Your task to perform on an android device: allow notifications from all sites in the chrome app Image 0: 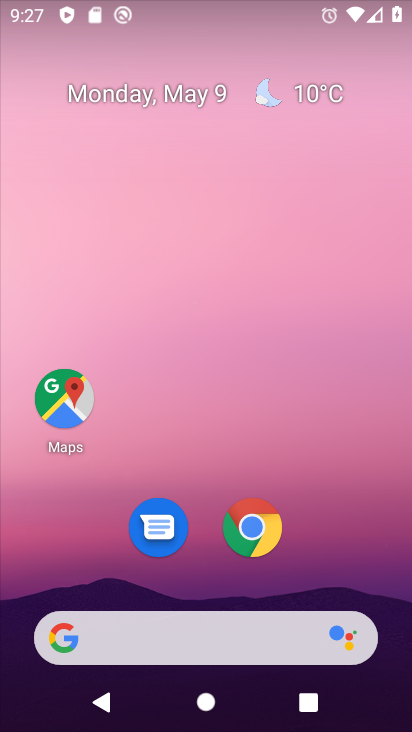
Step 0: click (253, 523)
Your task to perform on an android device: allow notifications from all sites in the chrome app Image 1: 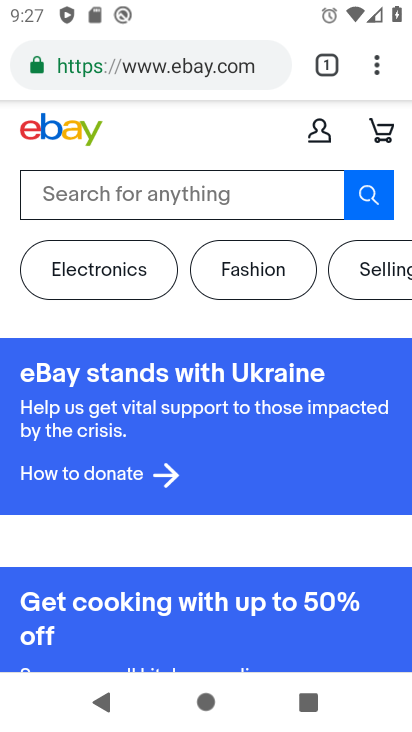
Step 1: click (371, 70)
Your task to perform on an android device: allow notifications from all sites in the chrome app Image 2: 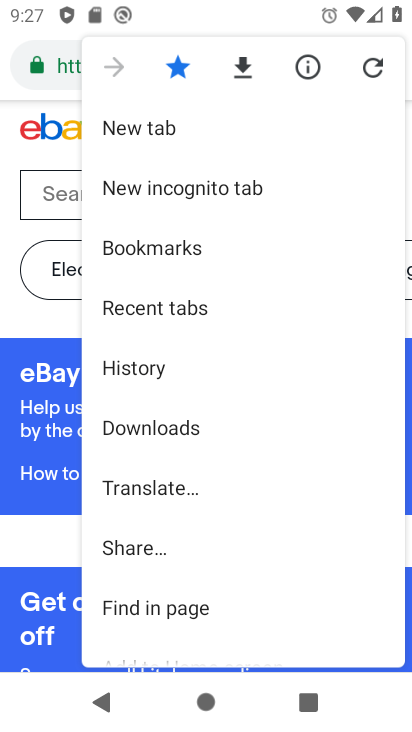
Step 2: drag from (229, 604) to (258, 288)
Your task to perform on an android device: allow notifications from all sites in the chrome app Image 3: 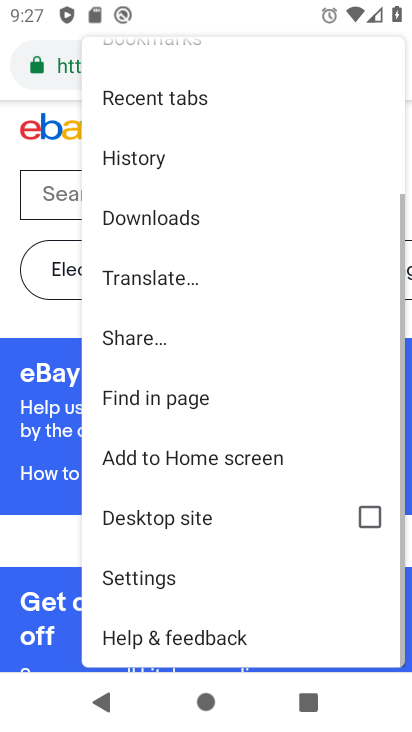
Step 3: click (165, 585)
Your task to perform on an android device: allow notifications from all sites in the chrome app Image 4: 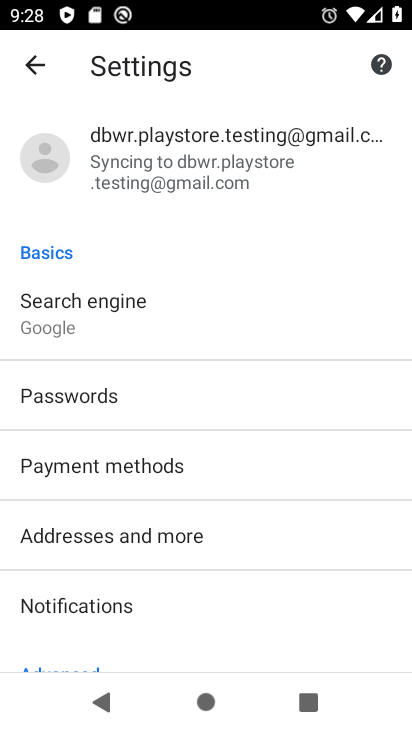
Step 4: drag from (218, 593) to (193, 157)
Your task to perform on an android device: allow notifications from all sites in the chrome app Image 5: 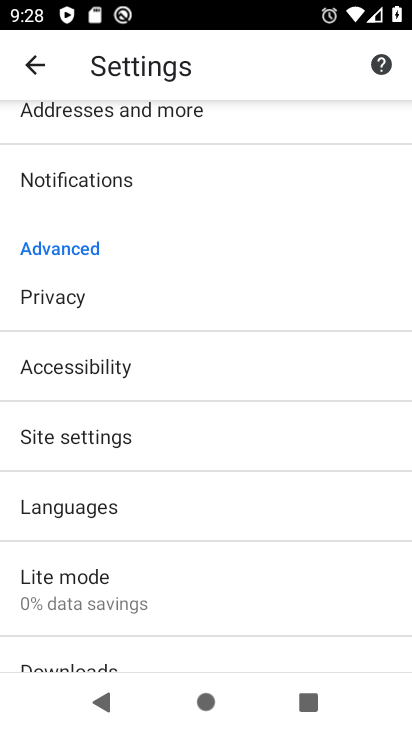
Step 5: click (68, 432)
Your task to perform on an android device: allow notifications from all sites in the chrome app Image 6: 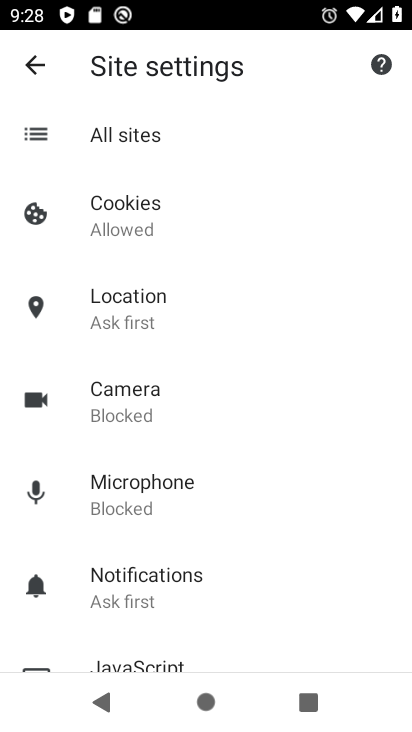
Step 6: click (117, 584)
Your task to perform on an android device: allow notifications from all sites in the chrome app Image 7: 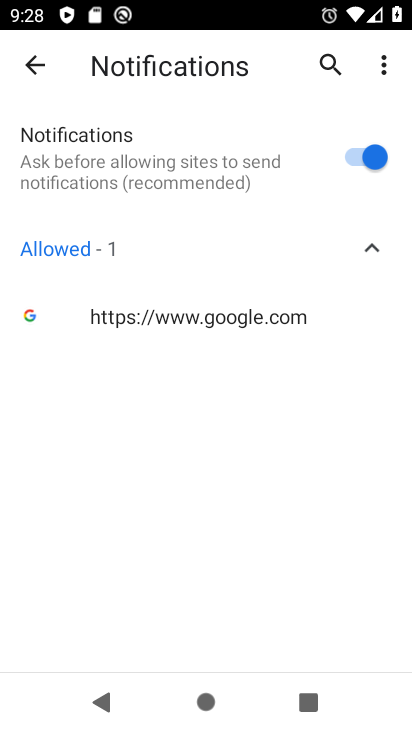
Step 7: task complete